Your task to perform on an android device: turn on showing notifications on the lock screen Image 0: 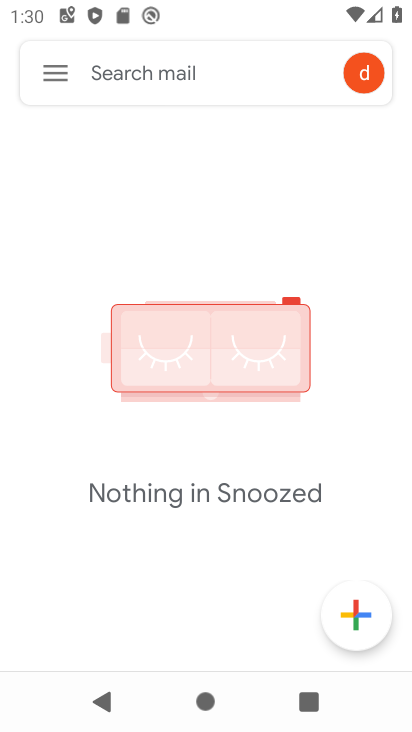
Step 0: press home button
Your task to perform on an android device: turn on showing notifications on the lock screen Image 1: 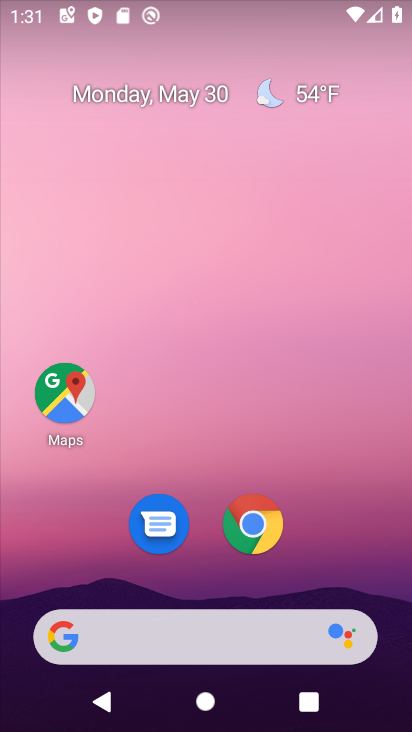
Step 1: drag from (305, 524) to (280, 92)
Your task to perform on an android device: turn on showing notifications on the lock screen Image 2: 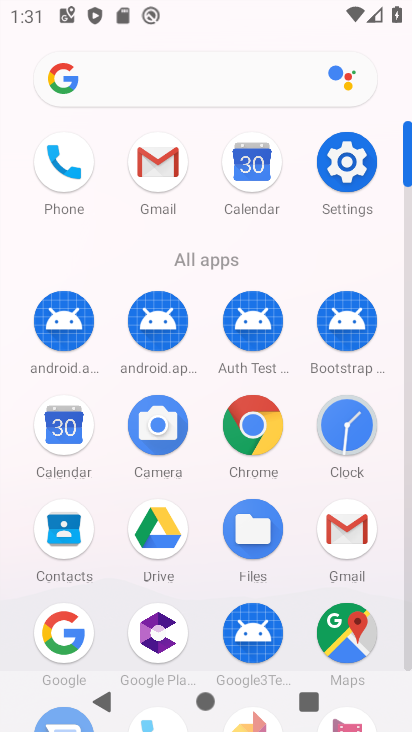
Step 2: press home button
Your task to perform on an android device: turn on showing notifications on the lock screen Image 3: 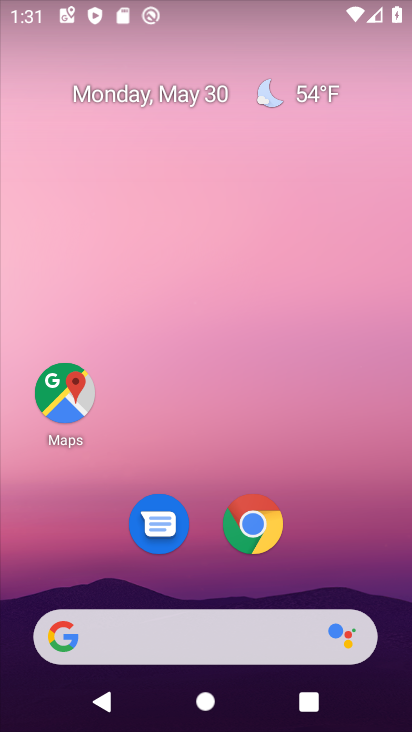
Step 3: drag from (317, 548) to (340, 30)
Your task to perform on an android device: turn on showing notifications on the lock screen Image 4: 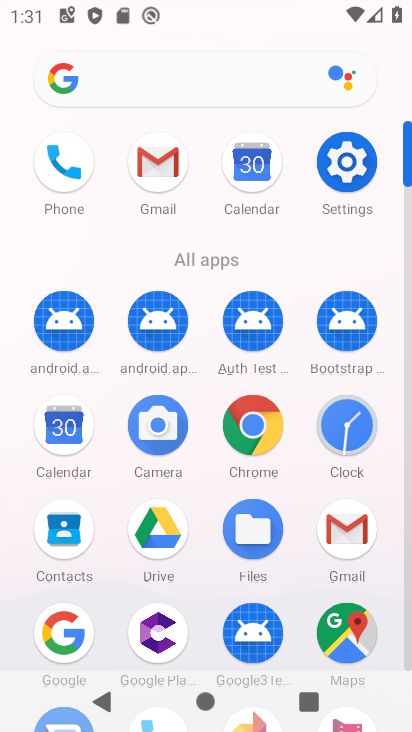
Step 4: click (355, 158)
Your task to perform on an android device: turn on showing notifications on the lock screen Image 5: 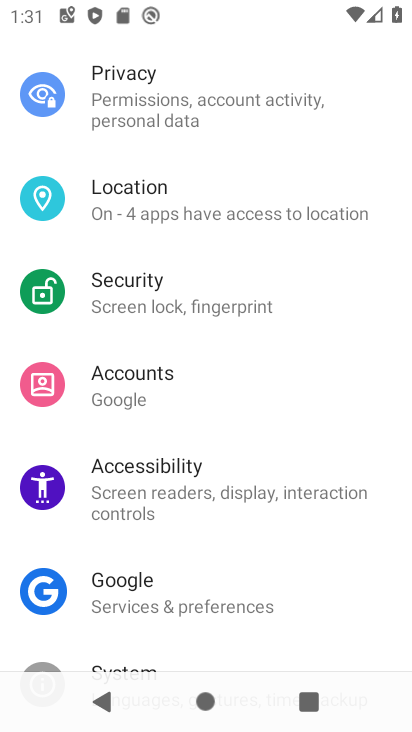
Step 5: drag from (235, 166) to (213, 624)
Your task to perform on an android device: turn on showing notifications on the lock screen Image 6: 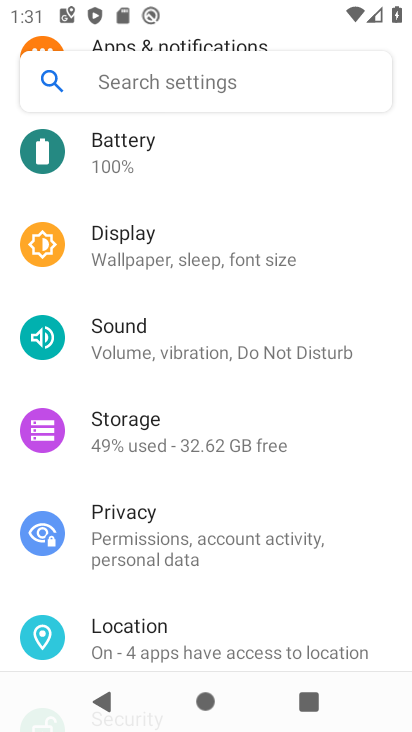
Step 6: drag from (243, 298) to (227, 562)
Your task to perform on an android device: turn on showing notifications on the lock screen Image 7: 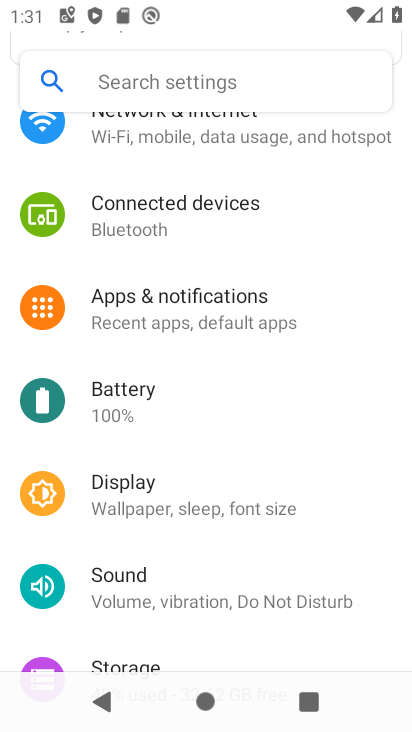
Step 7: click (208, 309)
Your task to perform on an android device: turn on showing notifications on the lock screen Image 8: 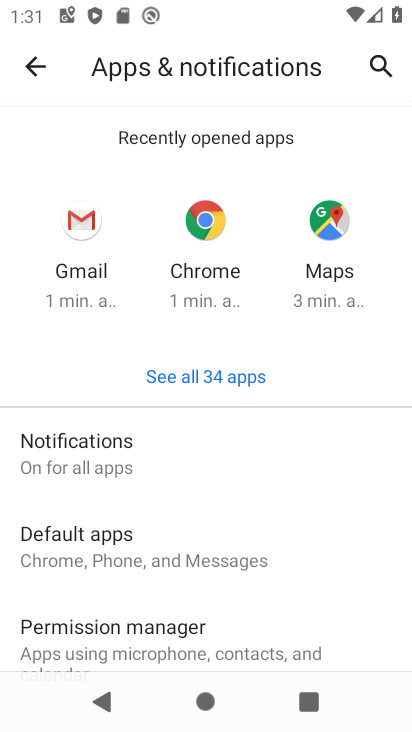
Step 8: click (153, 458)
Your task to perform on an android device: turn on showing notifications on the lock screen Image 9: 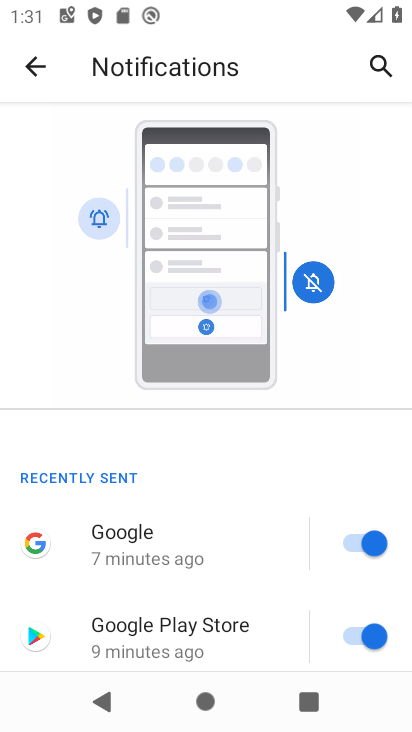
Step 9: drag from (256, 522) to (290, 129)
Your task to perform on an android device: turn on showing notifications on the lock screen Image 10: 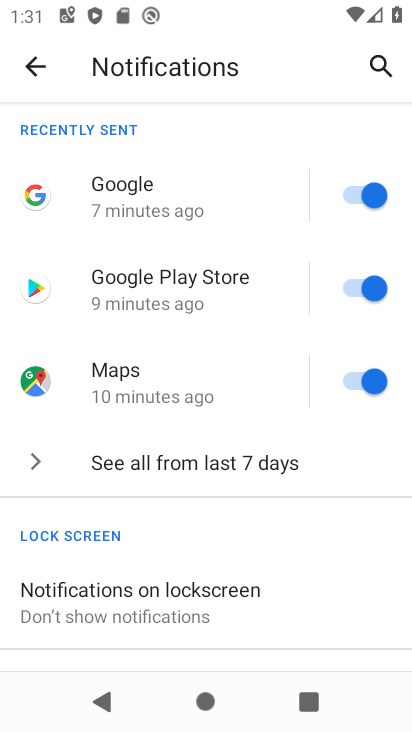
Step 10: click (160, 603)
Your task to perform on an android device: turn on showing notifications on the lock screen Image 11: 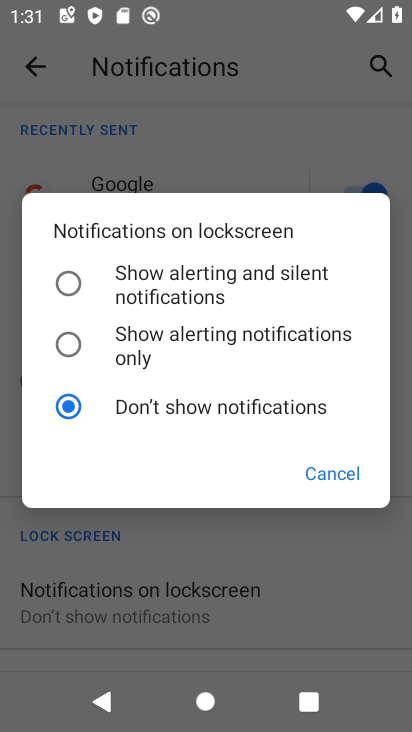
Step 11: click (84, 287)
Your task to perform on an android device: turn on showing notifications on the lock screen Image 12: 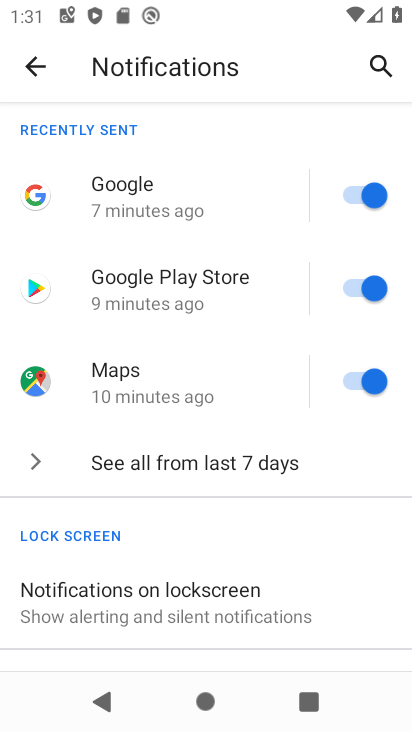
Step 12: task complete